Your task to perform on an android device: Go to wifi settings Image 0: 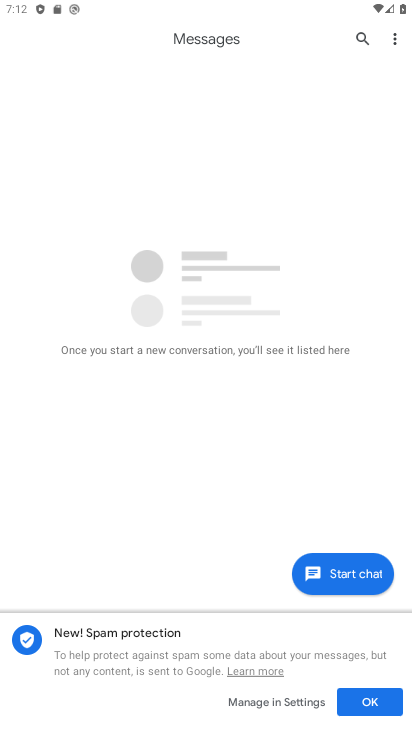
Step 0: press home button
Your task to perform on an android device: Go to wifi settings Image 1: 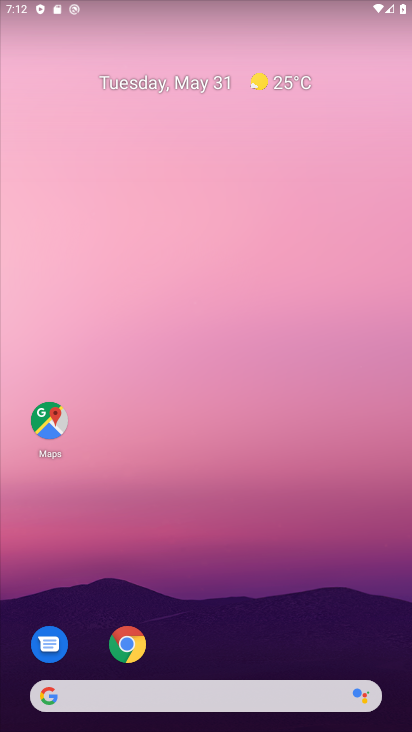
Step 1: drag from (232, 712) to (202, 396)
Your task to perform on an android device: Go to wifi settings Image 2: 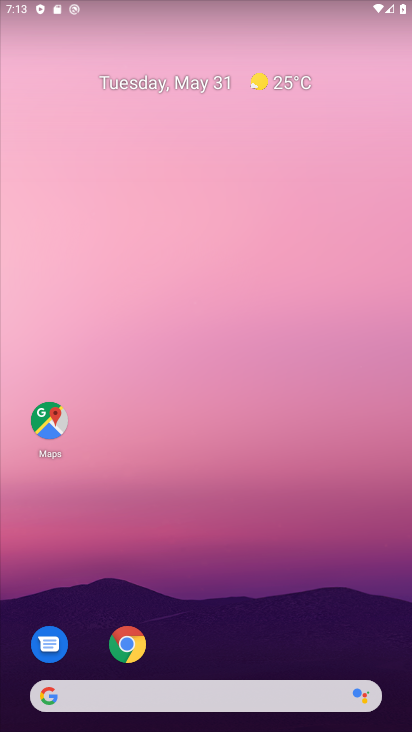
Step 2: drag from (171, 722) to (376, 210)
Your task to perform on an android device: Go to wifi settings Image 3: 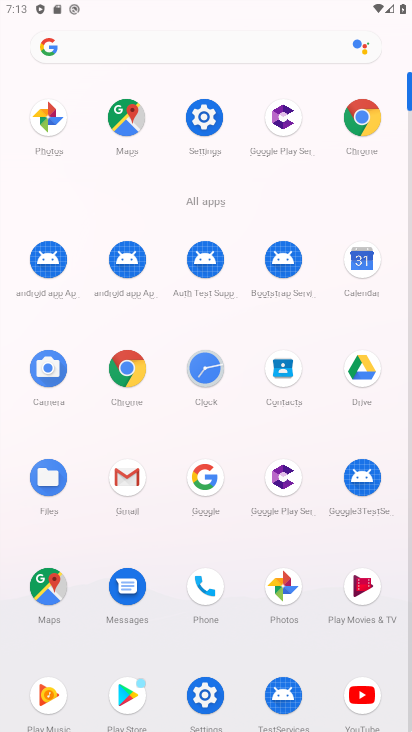
Step 3: click (204, 134)
Your task to perform on an android device: Go to wifi settings Image 4: 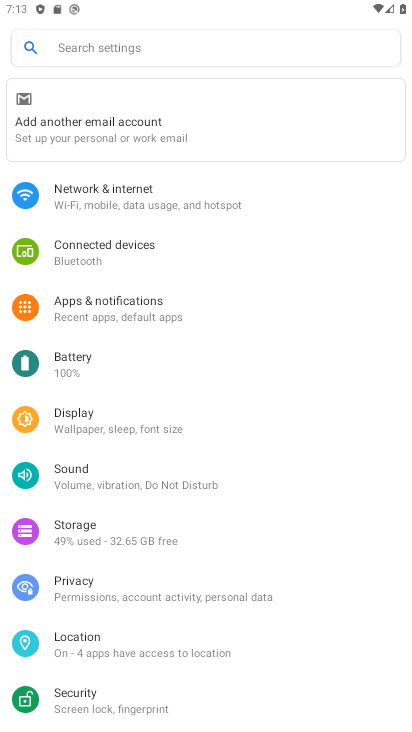
Step 4: click (131, 204)
Your task to perform on an android device: Go to wifi settings Image 5: 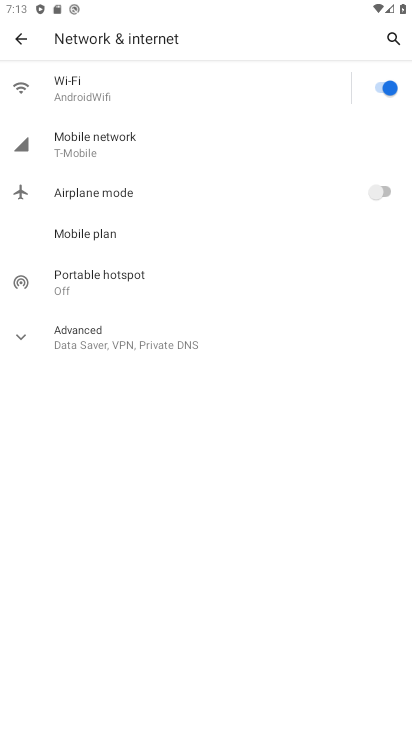
Step 5: task complete